Your task to perform on an android device: manage bookmarks in the chrome app Image 0: 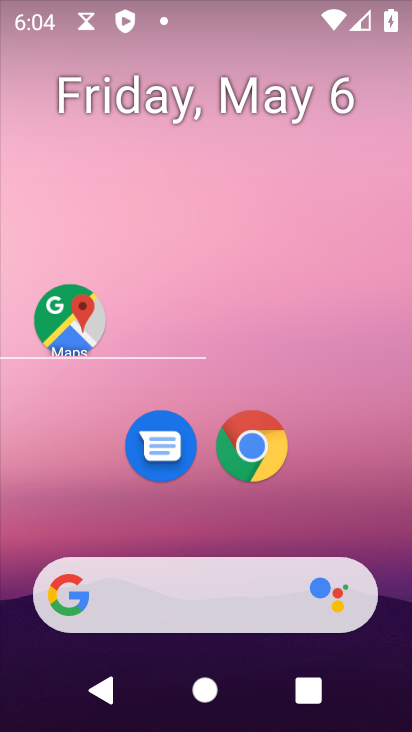
Step 0: click (313, 220)
Your task to perform on an android device: manage bookmarks in the chrome app Image 1: 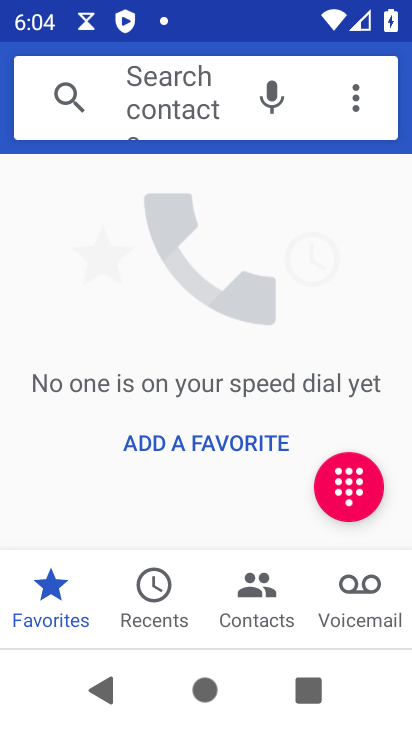
Step 1: drag from (279, 340) to (243, 103)
Your task to perform on an android device: manage bookmarks in the chrome app Image 2: 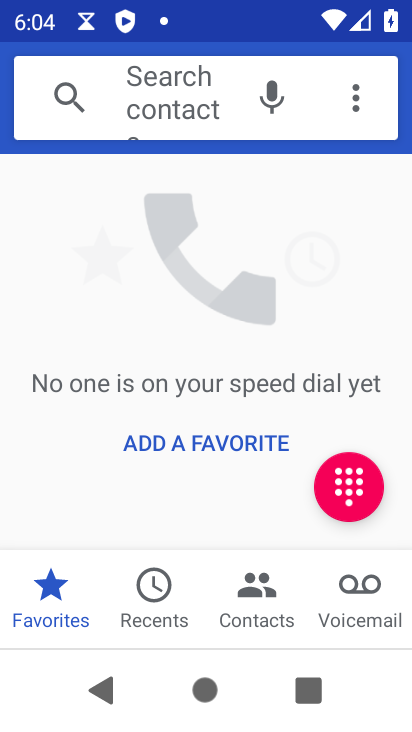
Step 2: press home button
Your task to perform on an android device: manage bookmarks in the chrome app Image 3: 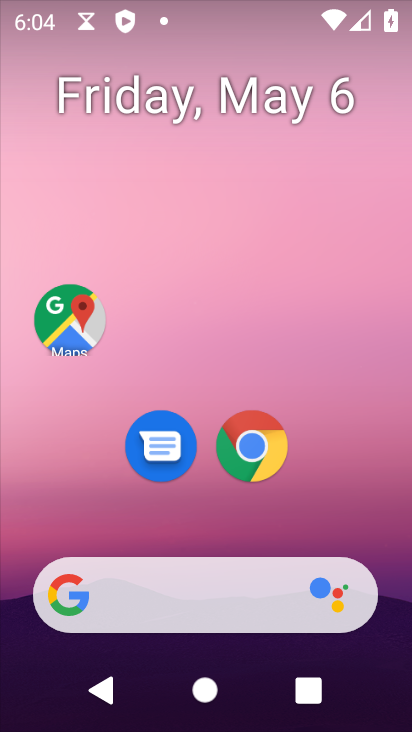
Step 3: click (91, 324)
Your task to perform on an android device: manage bookmarks in the chrome app Image 4: 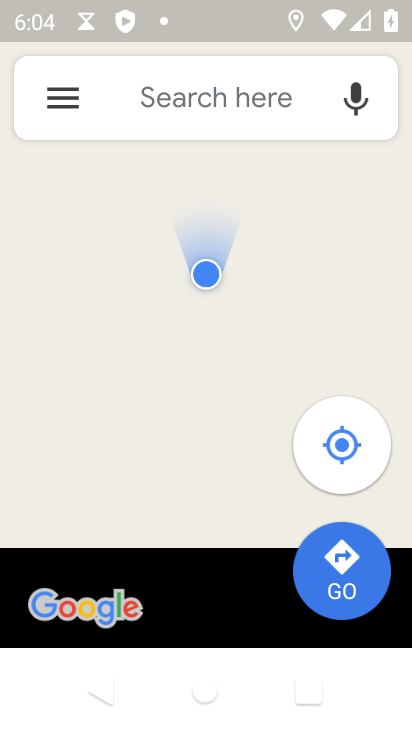
Step 4: press home button
Your task to perform on an android device: manage bookmarks in the chrome app Image 5: 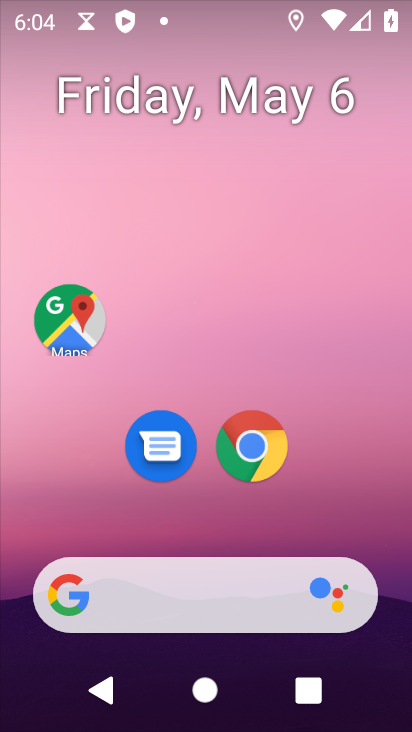
Step 5: click (260, 456)
Your task to perform on an android device: manage bookmarks in the chrome app Image 6: 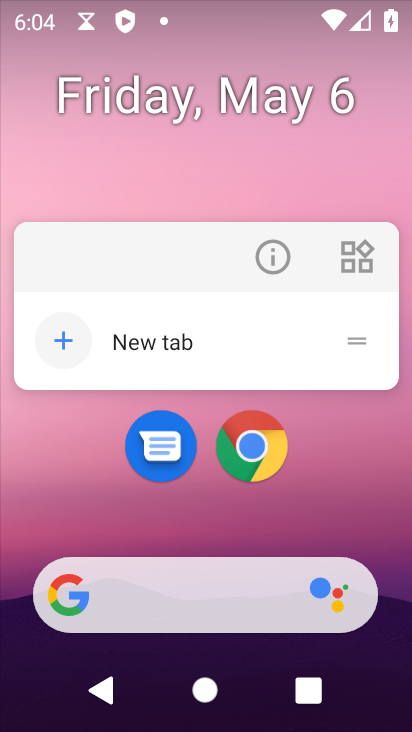
Step 6: click (256, 457)
Your task to perform on an android device: manage bookmarks in the chrome app Image 7: 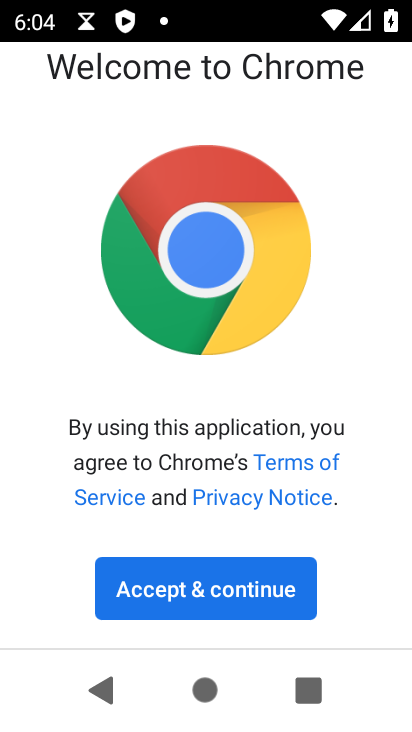
Step 7: click (210, 595)
Your task to perform on an android device: manage bookmarks in the chrome app Image 8: 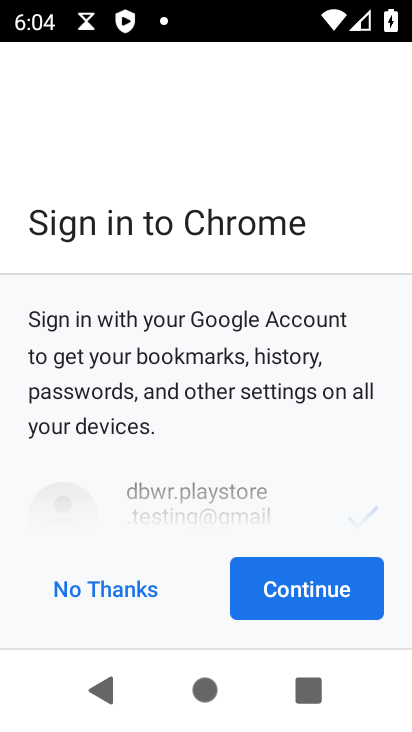
Step 8: click (334, 576)
Your task to perform on an android device: manage bookmarks in the chrome app Image 9: 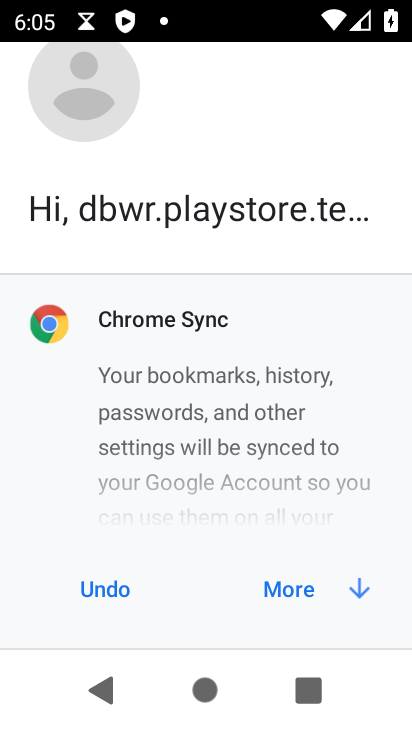
Step 9: click (301, 592)
Your task to perform on an android device: manage bookmarks in the chrome app Image 10: 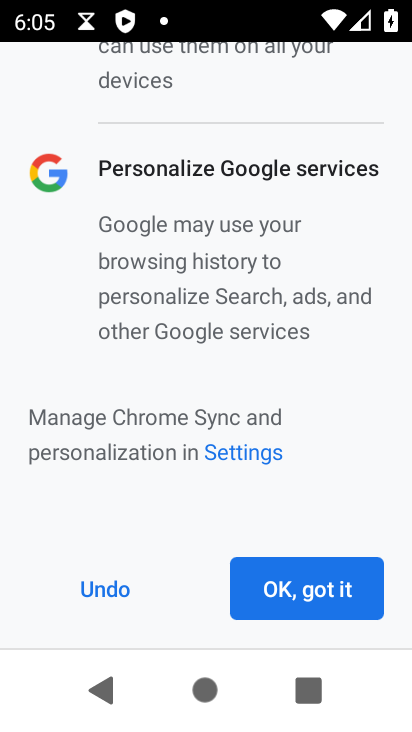
Step 10: click (301, 592)
Your task to perform on an android device: manage bookmarks in the chrome app Image 11: 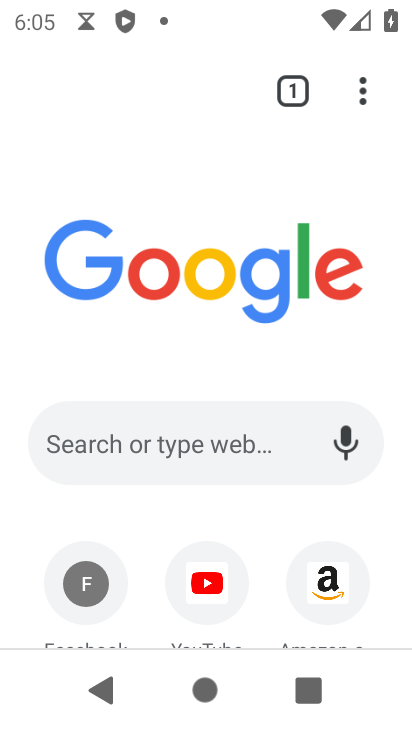
Step 11: click (363, 93)
Your task to perform on an android device: manage bookmarks in the chrome app Image 12: 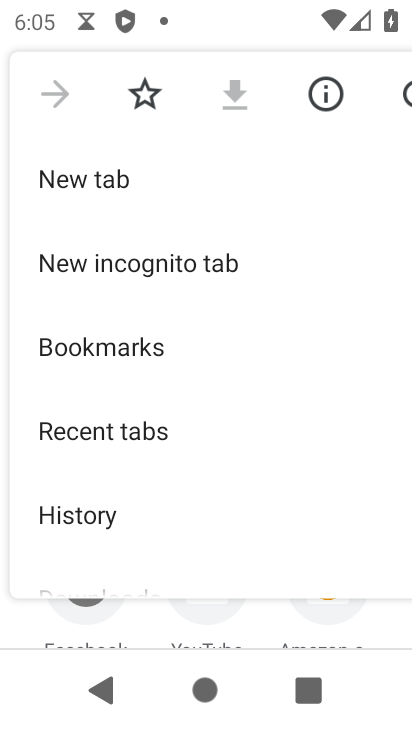
Step 12: click (154, 338)
Your task to perform on an android device: manage bookmarks in the chrome app Image 13: 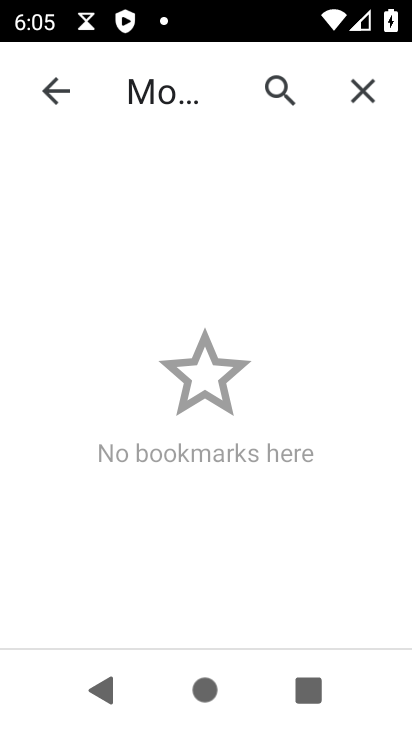
Step 13: task complete